Your task to perform on an android device: change the upload size in google photos Image 0: 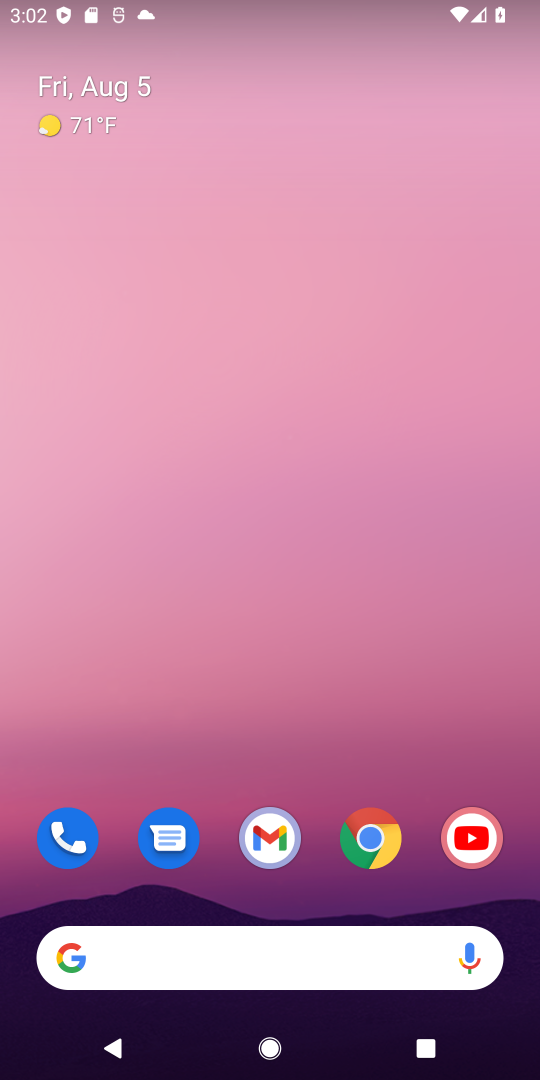
Step 0: drag from (424, 814) to (380, 226)
Your task to perform on an android device: change the upload size in google photos Image 1: 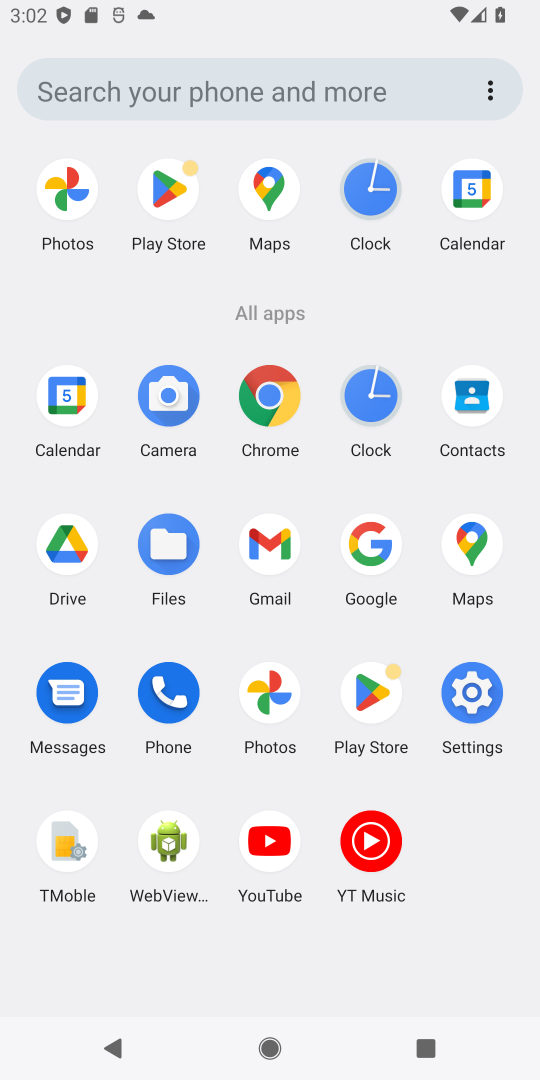
Step 1: click (273, 698)
Your task to perform on an android device: change the upload size in google photos Image 2: 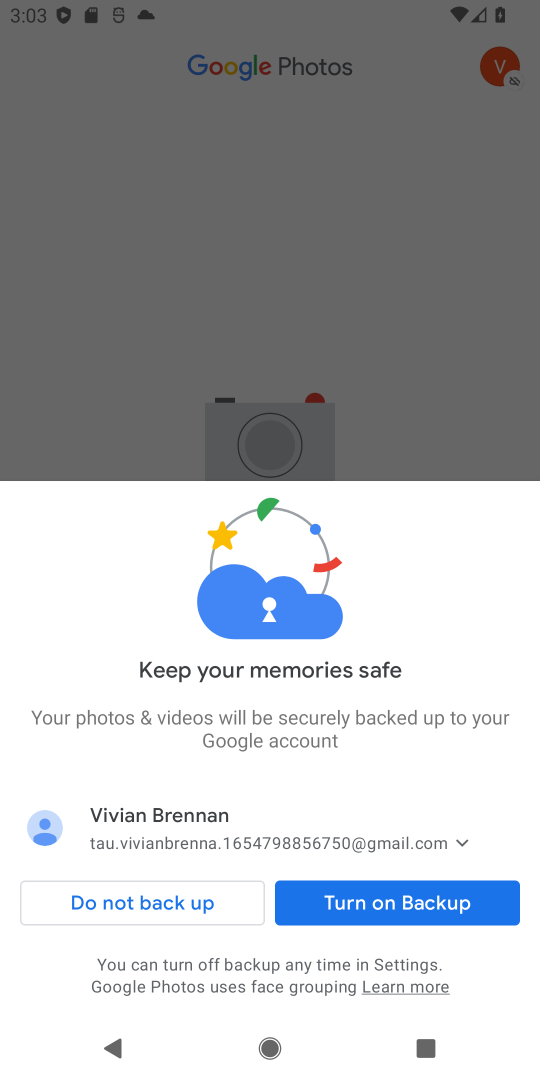
Step 2: click (403, 903)
Your task to perform on an android device: change the upload size in google photos Image 3: 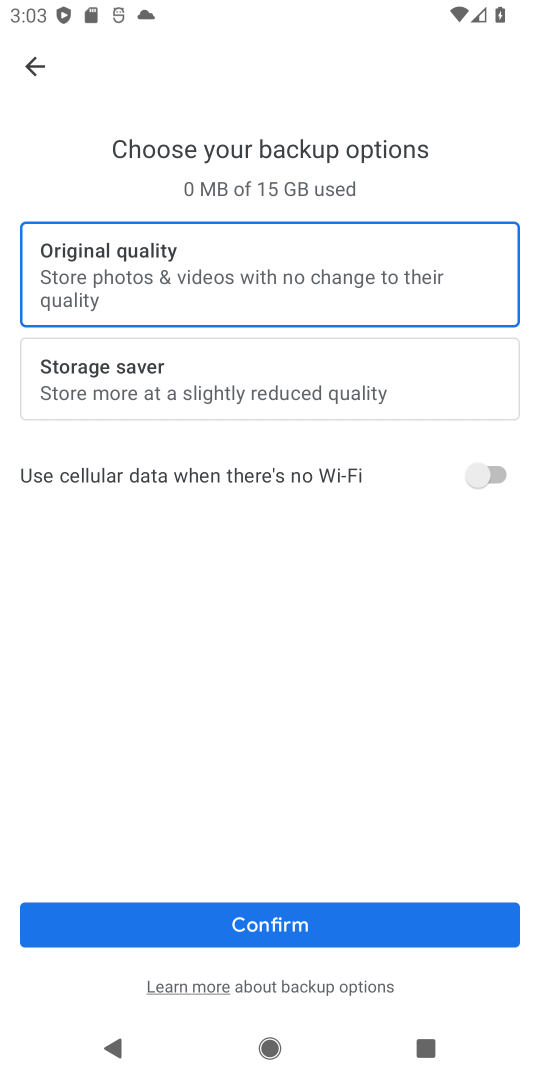
Step 3: click (329, 920)
Your task to perform on an android device: change the upload size in google photos Image 4: 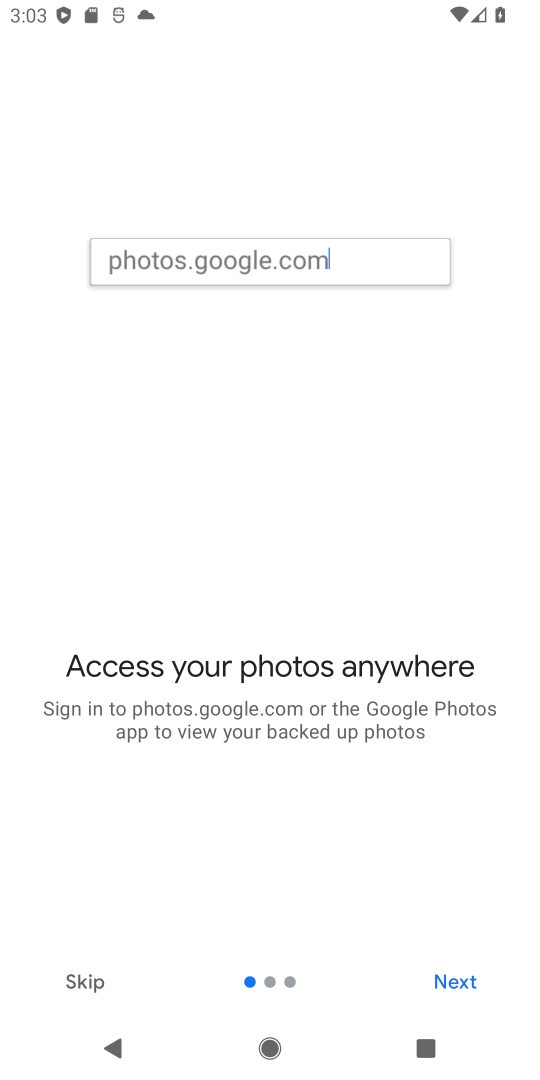
Step 4: click (85, 986)
Your task to perform on an android device: change the upload size in google photos Image 5: 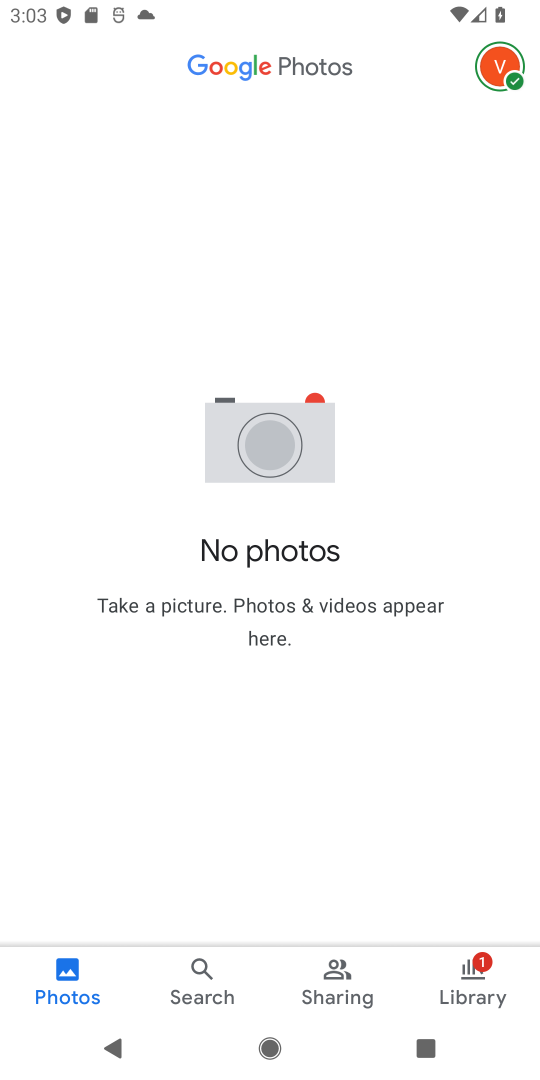
Step 5: click (488, 75)
Your task to perform on an android device: change the upload size in google photos Image 6: 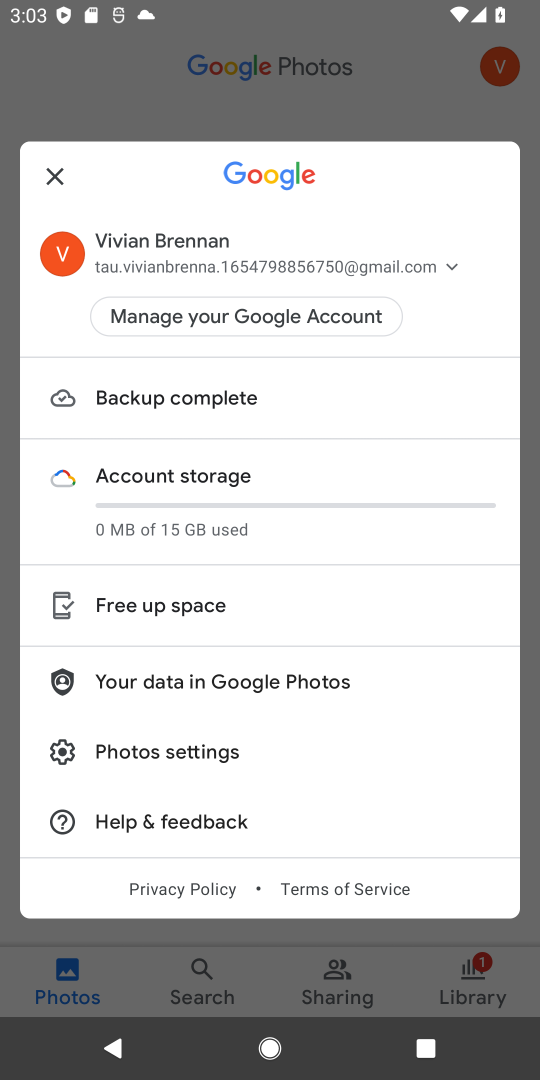
Step 6: click (216, 765)
Your task to perform on an android device: change the upload size in google photos Image 7: 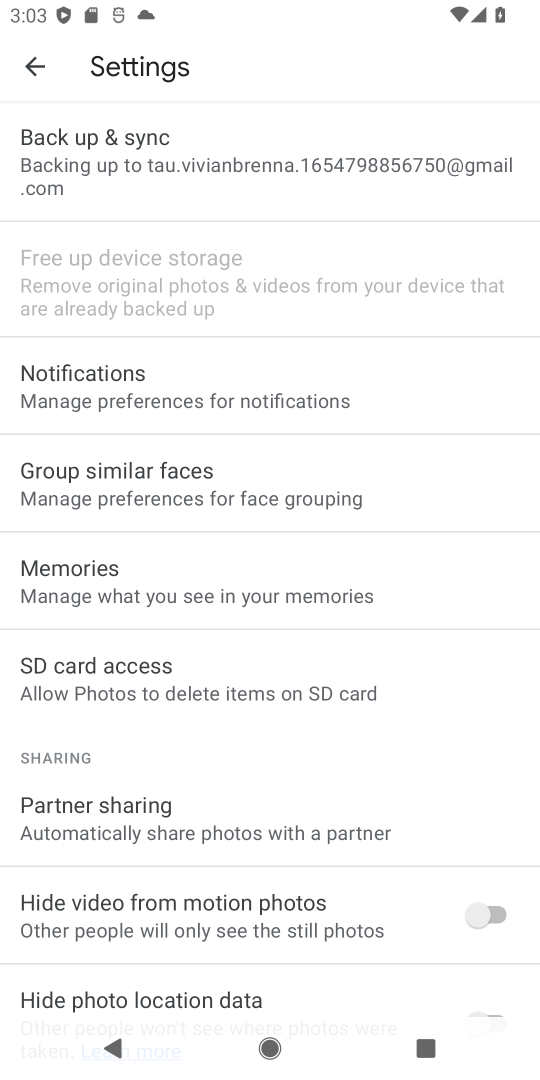
Step 7: click (293, 150)
Your task to perform on an android device: change the upload size in google photos Image 8: 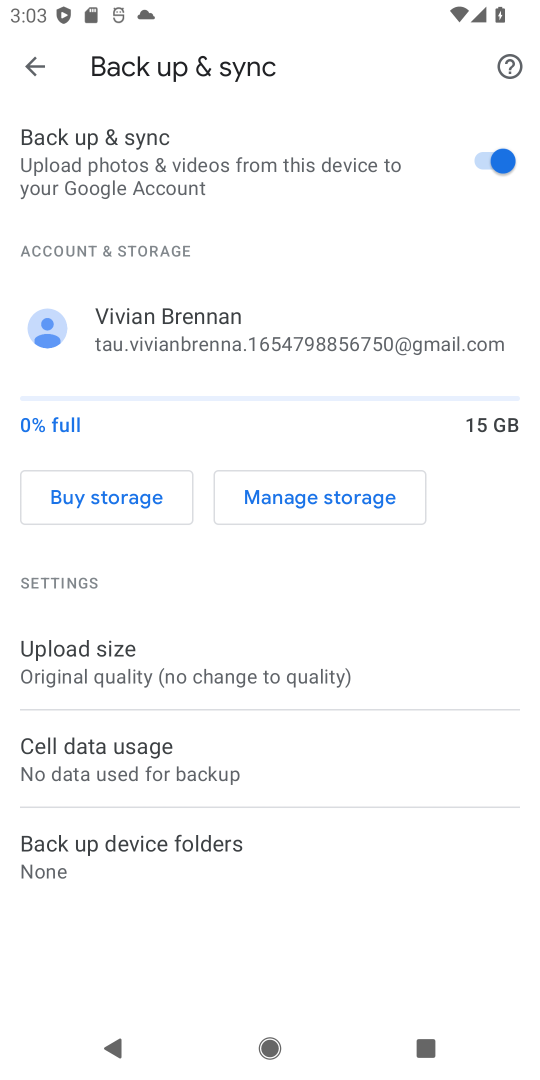
Step 8: click (356, 671)
Your task to perform on an android device: change the upload size in google photos Image 9: 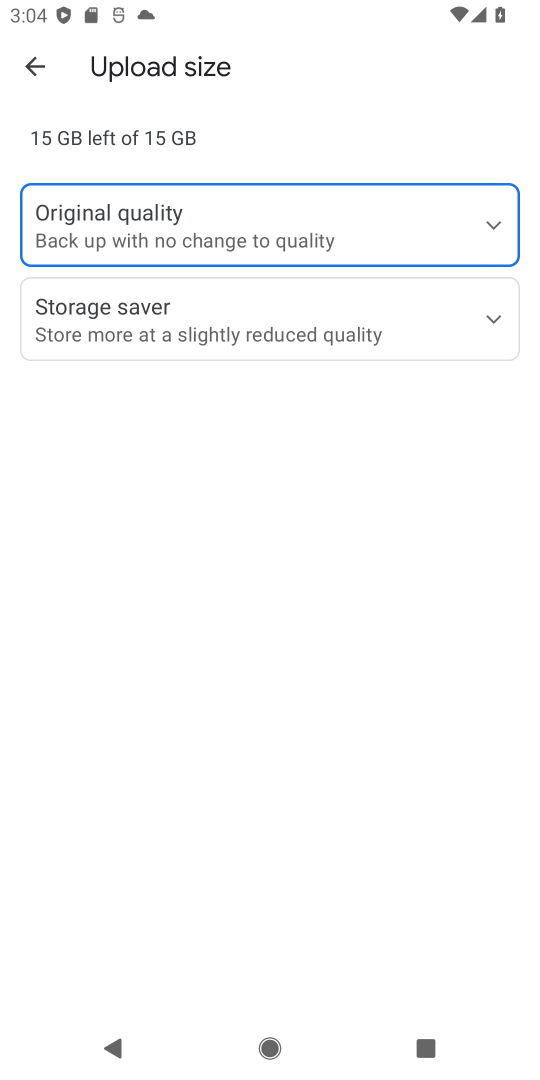
Step 9: click (358, 341)
Your task to perform on an android device: change the upload size in google photos Image 10: 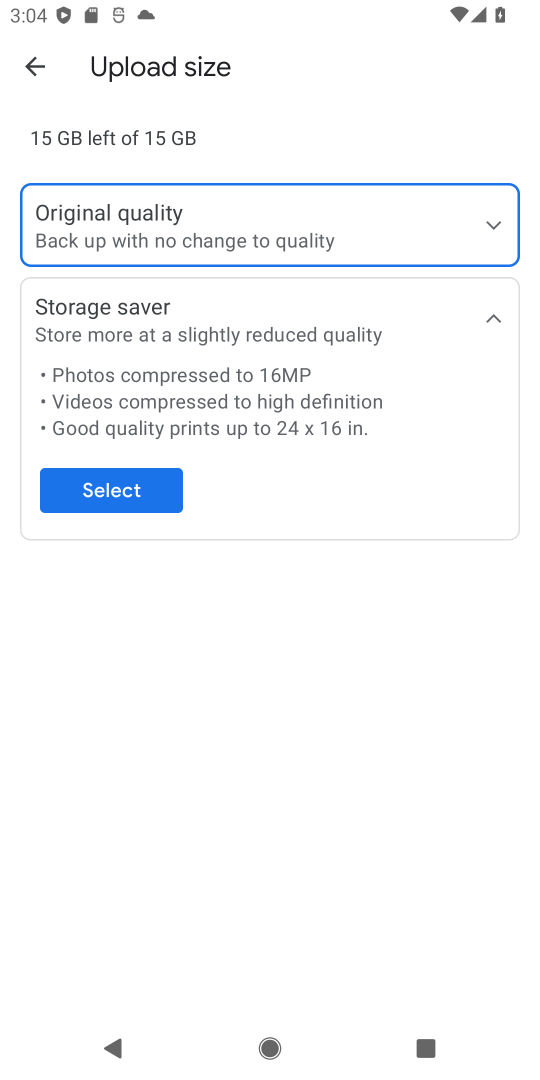
Step 10: click (160, 496)
Your task to perform on an android device: change the upload size in google photos Image 11: 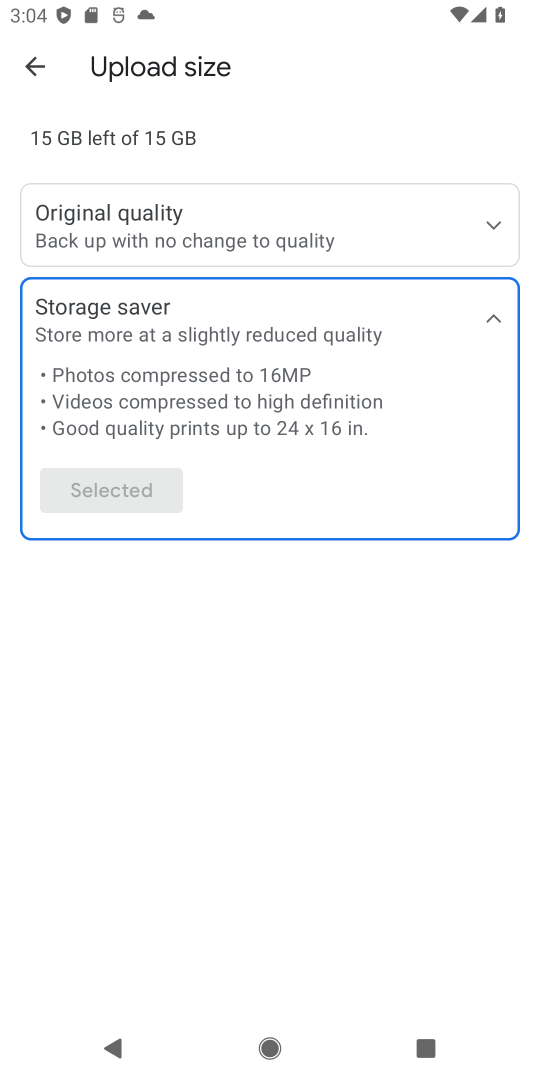
Step 11: task complete